Your task to perform on an android device: set the timer Image 0: 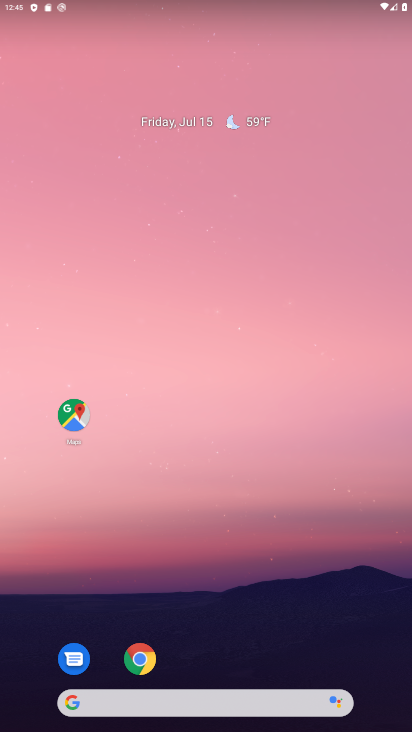
Step 0: drag from (223, 661) to (255, 120)
Your task to perform on an android device: set the timer Image 1: 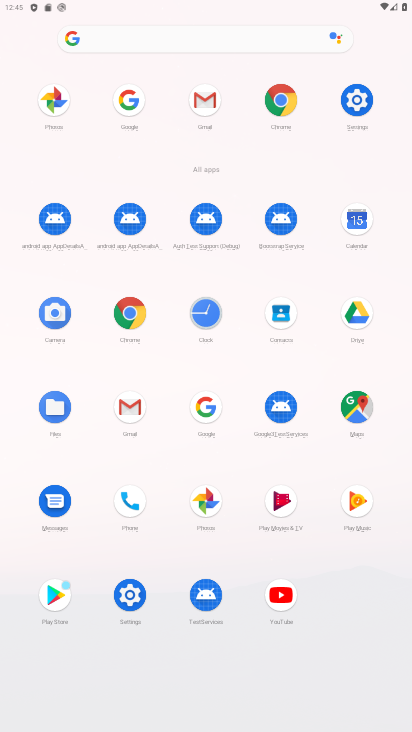
Step 1: click (203, 318)
Your task to perform on an android device: set the timer Image 2: 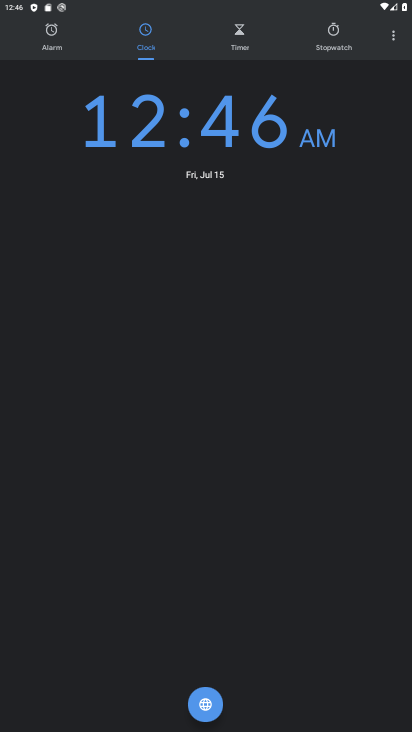
Step 2: click (238, 47)
Your task to perform on an android device: set the timer Image 3: 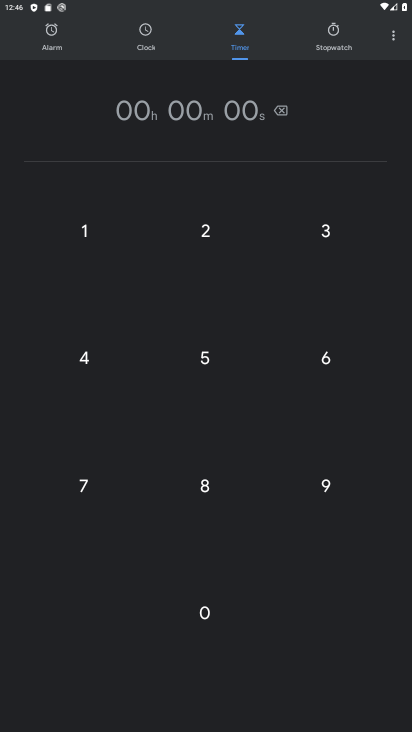
Step 3: click (217, 242)
Your task to perform on an android device: set the timer Image 4: 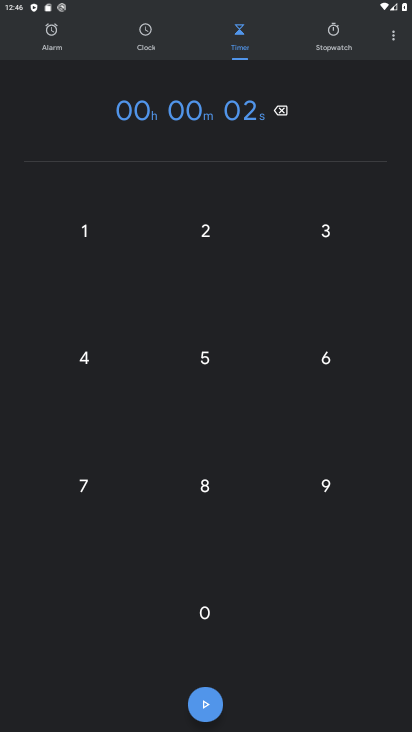
Step 4: click (221, 242)
Your task to perform on an android device: set the timer Image 5: 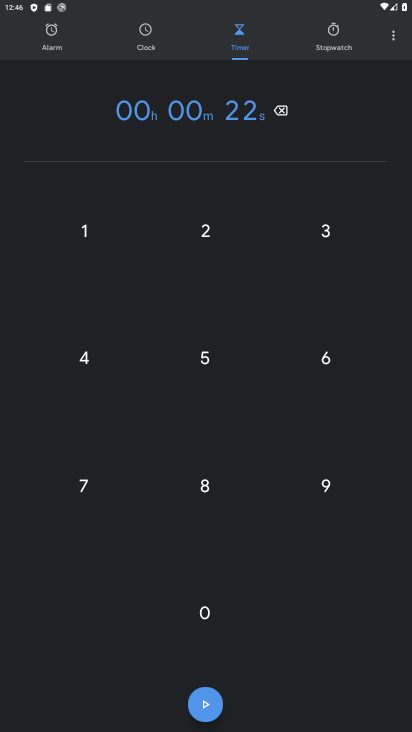
Step 5: task complete